Your task to perform on an android device: Open network settings Image 0: 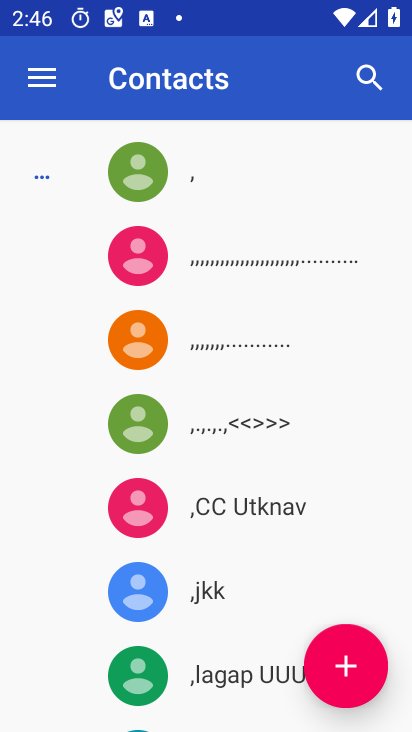
Step 0: press home button
Your task to perform on an android device: Open network settings Image 1: 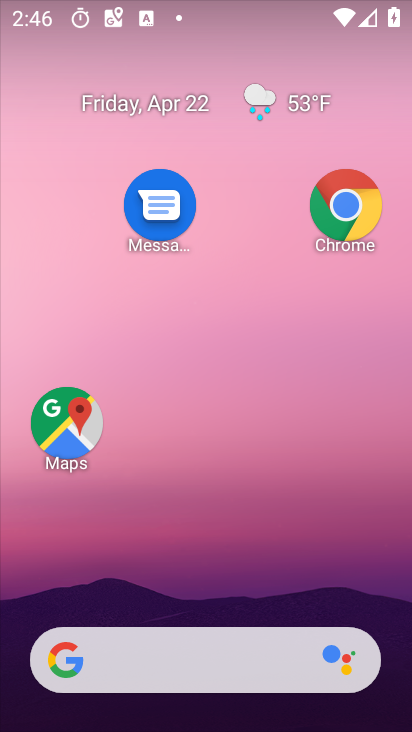
Step 1: drag from (171, 604) to (185, 226)
Your task to perform on an android device: Open network settings Image 2: 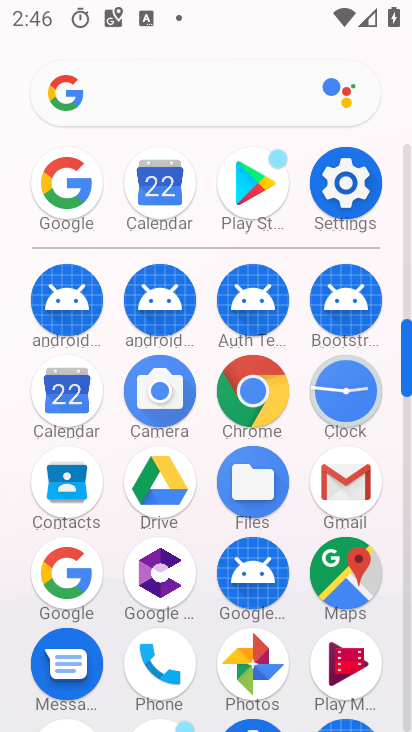
Step 2: click (343, 194)
Your task to perform on an android device: Open network settings Image 3: 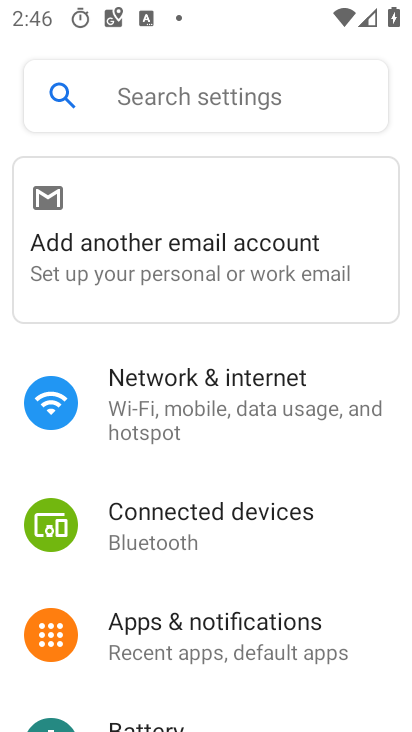
Step 3: click (207, 402)
Your task to perform on an android device: Open network settings Image 4: 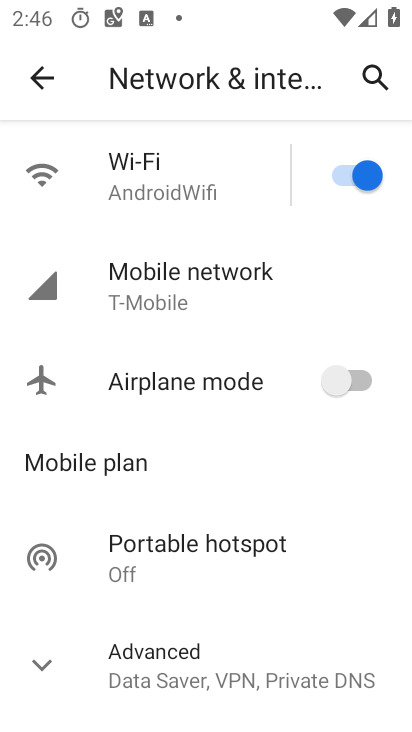
Step 4: click (189, 659)
Your task to perform on an android device: Open network settings Image 5: 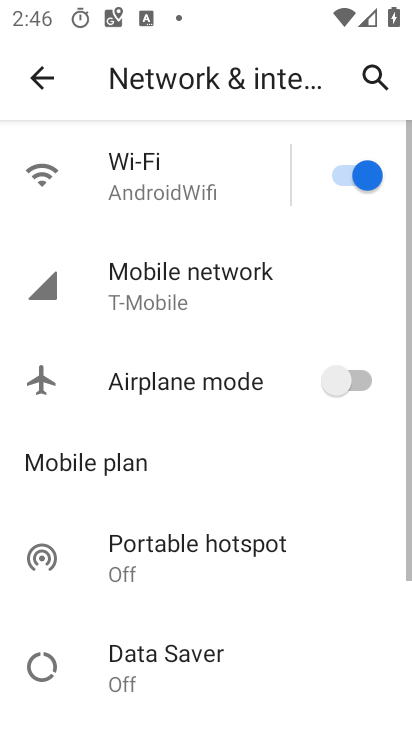
Step 5: click (188, 296)
Your task to perform on an android device: Open network settings Image 6: 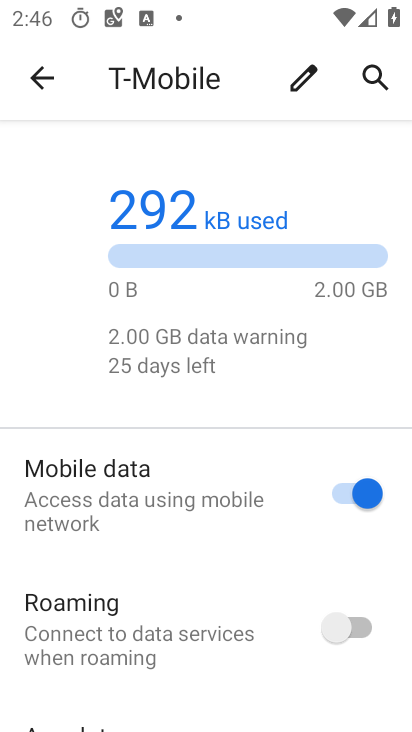
Step 6: task complete